Your task to perform on an android device: Go to Wikipedia Image 0: 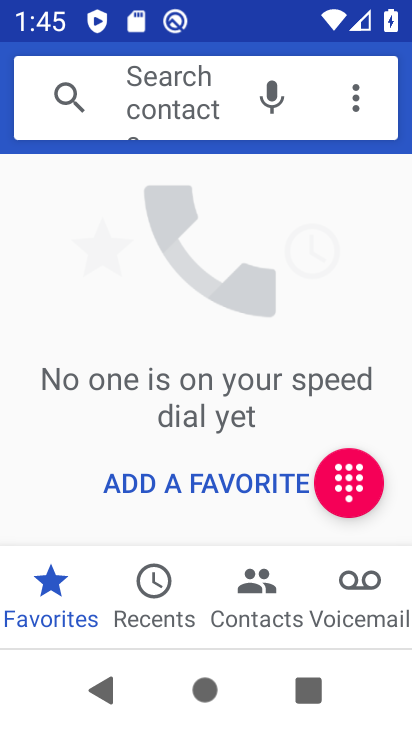
Step 0: press home button
Your task to perform on an android device: Go to Wikipedia Image 1: 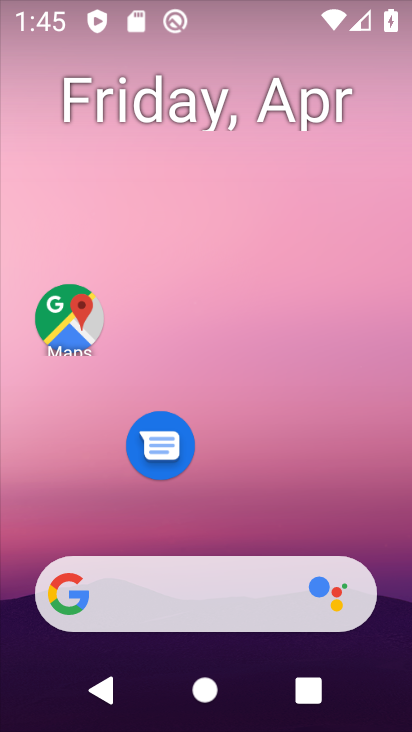
Step 1: drag from (237, 416) to (345, 0)
Your task to perform on an android device: Go to Wikipedia Image 2: 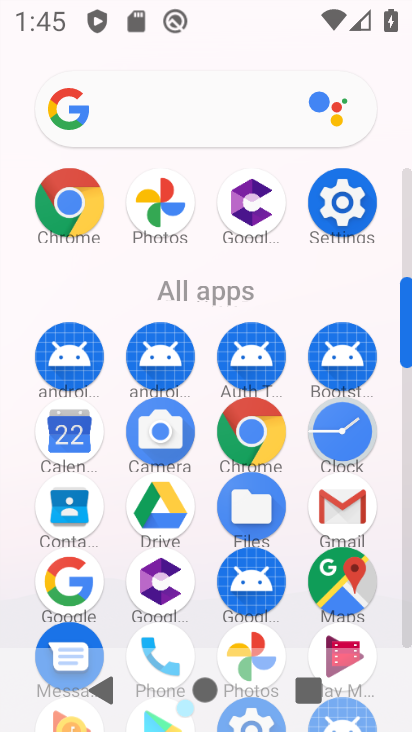
Step 2: click (240, 428)
Your task to perform on an android device: Go to Wikipedia Image 3: 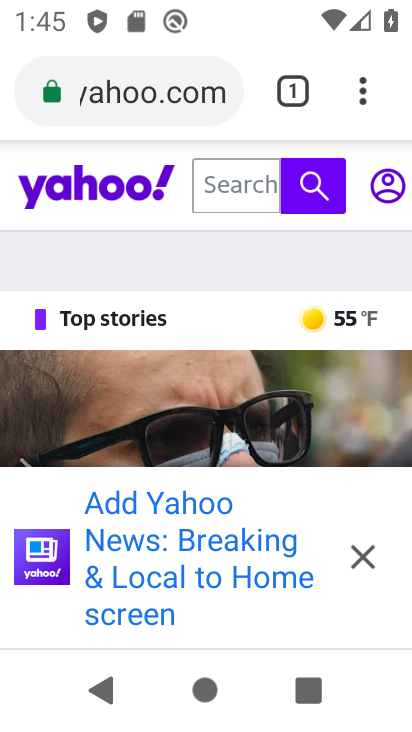
Step 3: click (116, 80)
Your task to perform on an android device: Go to Wikipedia Image 4: 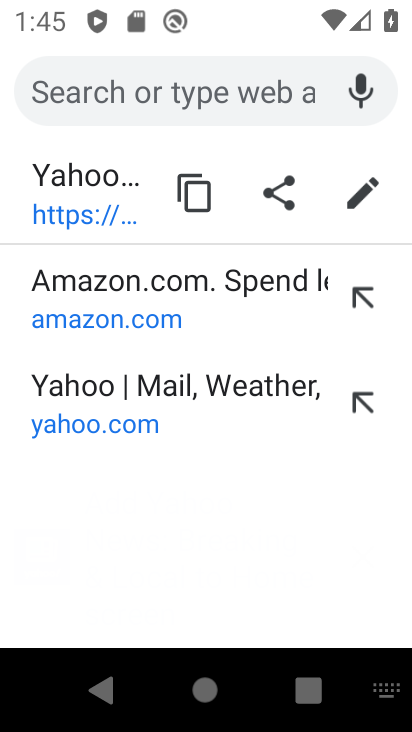
Step 4: type "wikipedia"
Your task to perform on an android device: Go to Wikipedia Image 5: 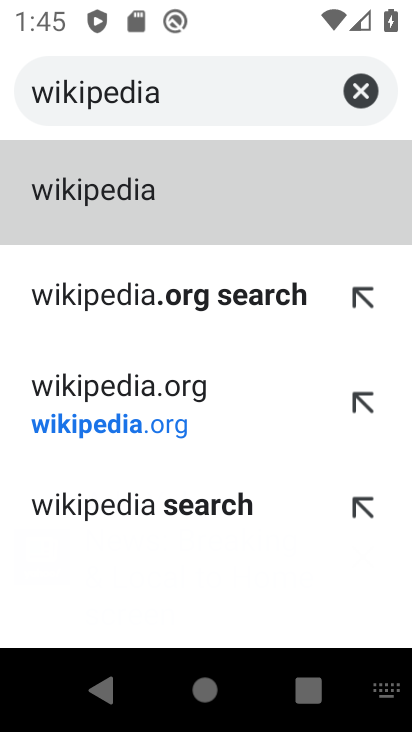
Step 5: click (113, 207)
Your task to perform on an android device: Go to Wikipedia Image 6: 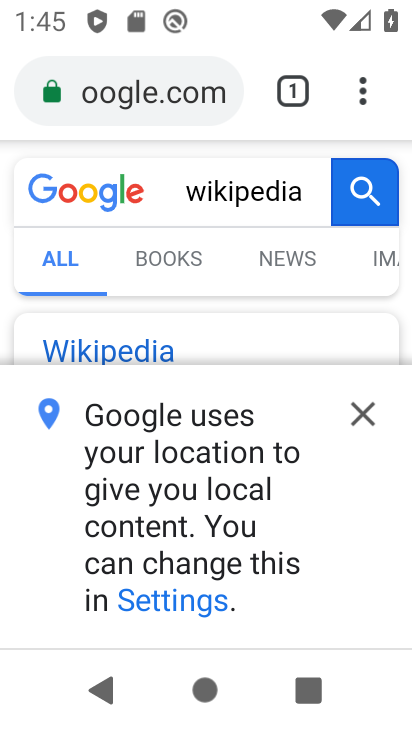
Step 6: click (115, 344)
Your task to perform on an android device: Go to Wikipedia Image 7: 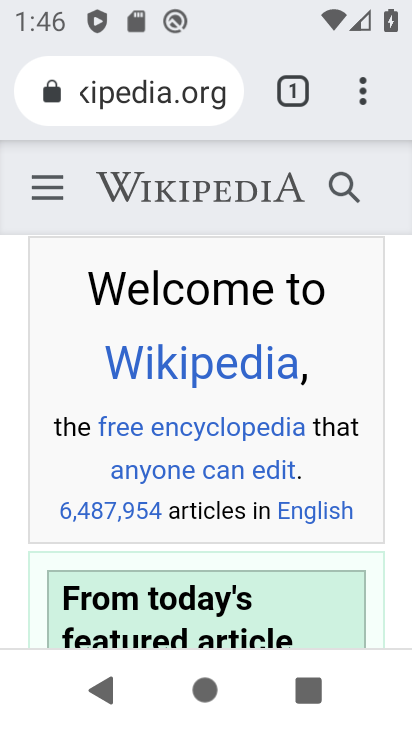
Step 7: task complete